Your task to perform on an android device: install app "Spotify" Image 0: 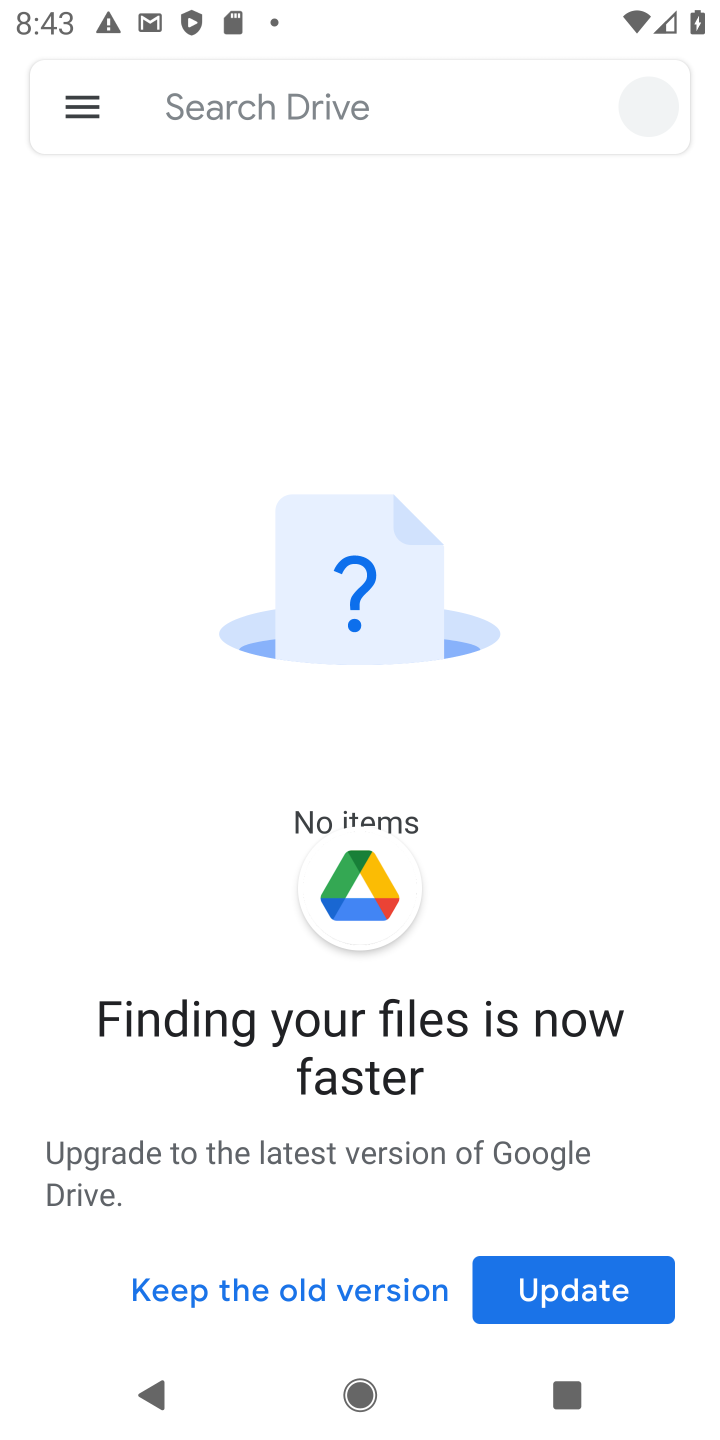
Step 0: press home button
Your task to perform on an android device: install app "Spotify" Image 1: 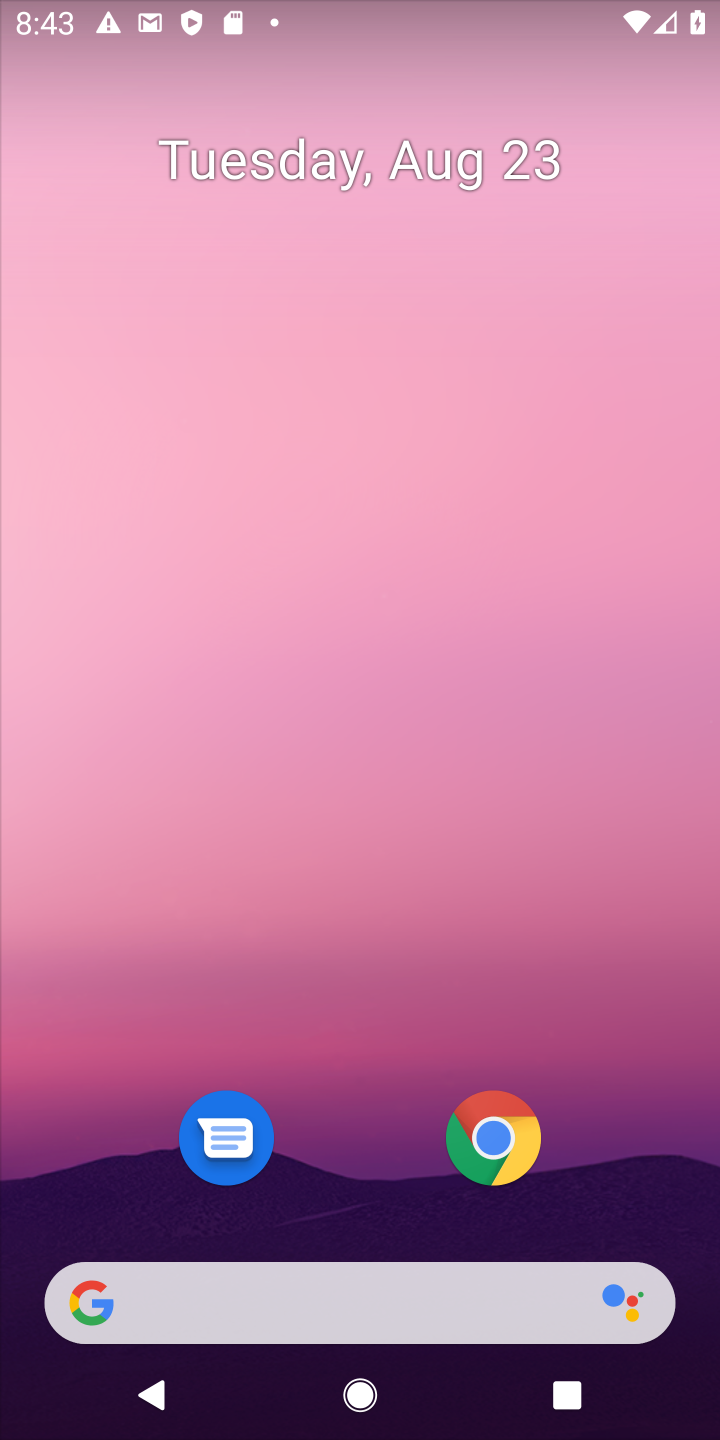
Step 1: drag from (618, 1190) to (669, 88)
Your task to perform on an android device: install app "Spotify" Image 2: 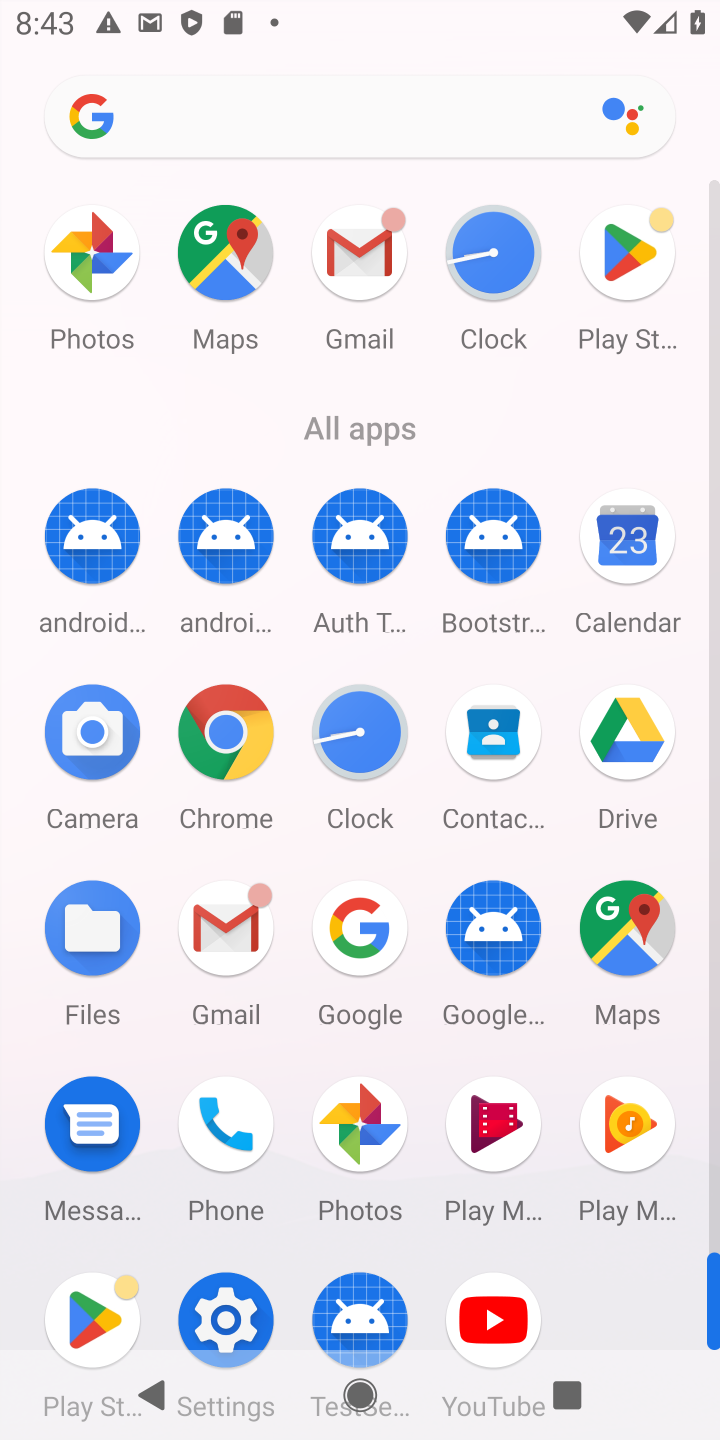
Step 2: click (633, 263)
Your task to perform on an android device: install app "Spotify" Image 3: 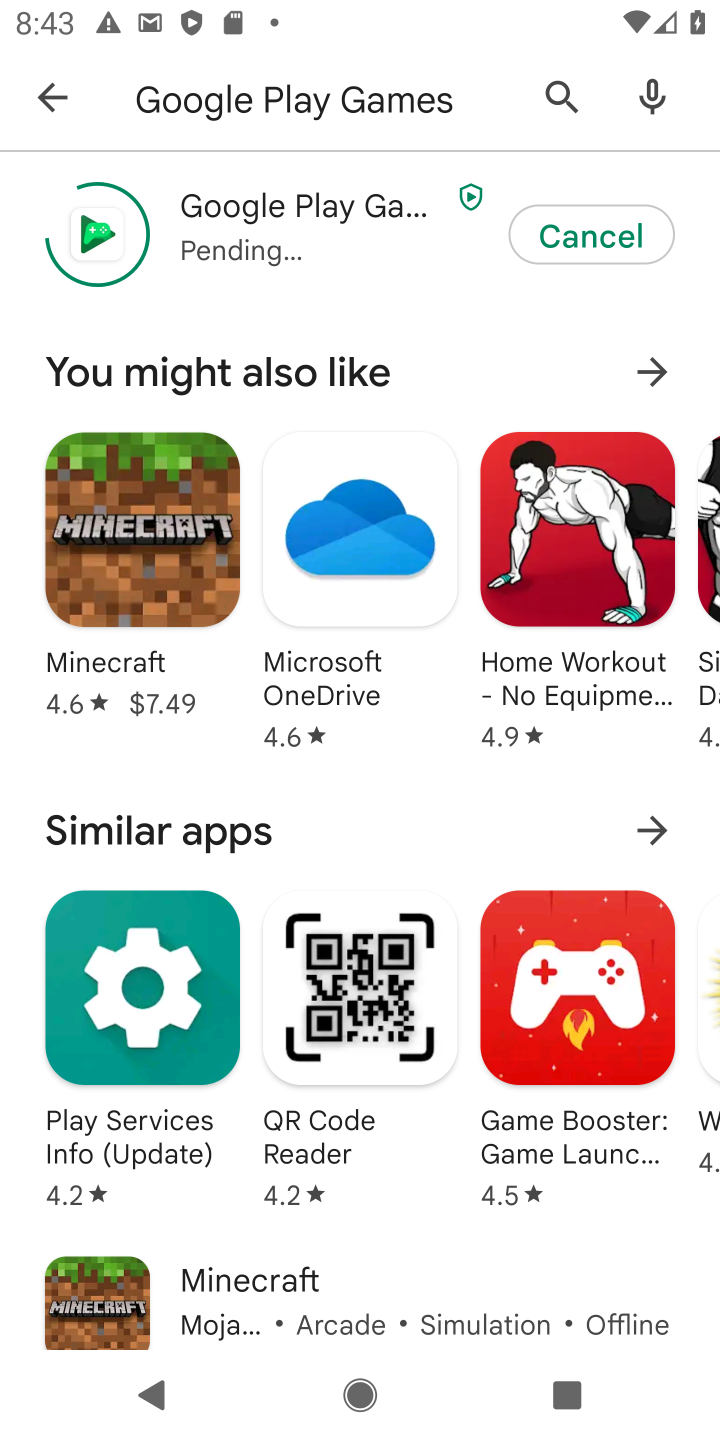
Step 3: press back button
Your task to perform on an android device: install app "Spotify" Image 4: 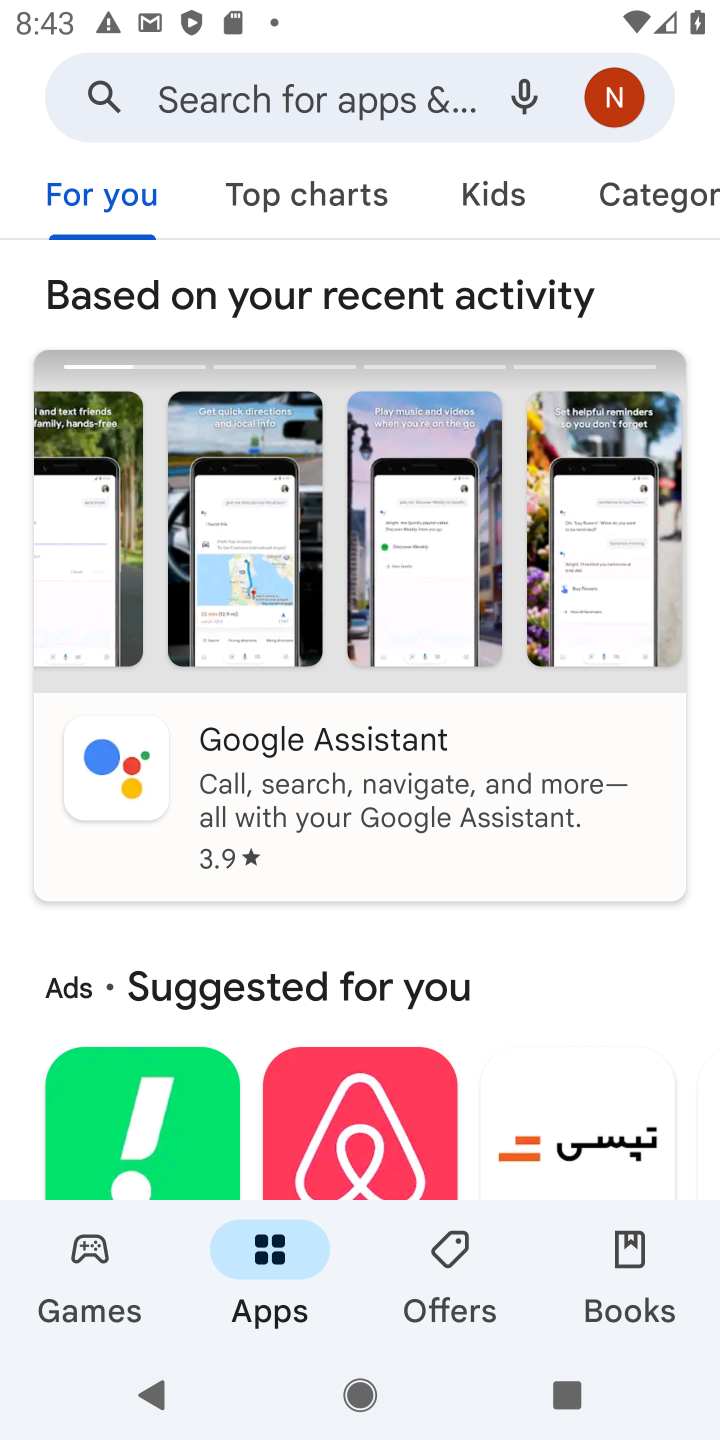
Step 4: click (367, 104)
Your task to perform on an android device: install app "Spotify" Image 5: 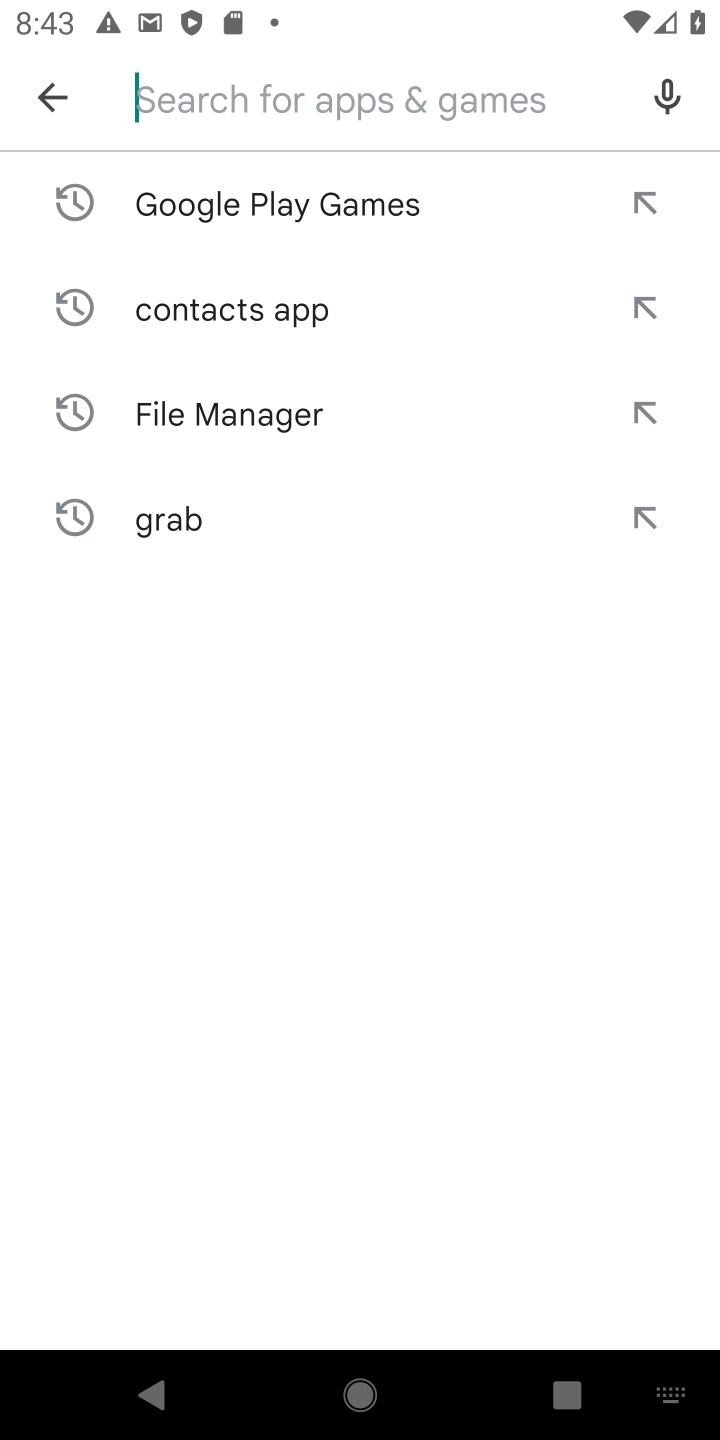
Step 5: press enter
Your task to perform on an android device: install app "Spotify" Image 6: 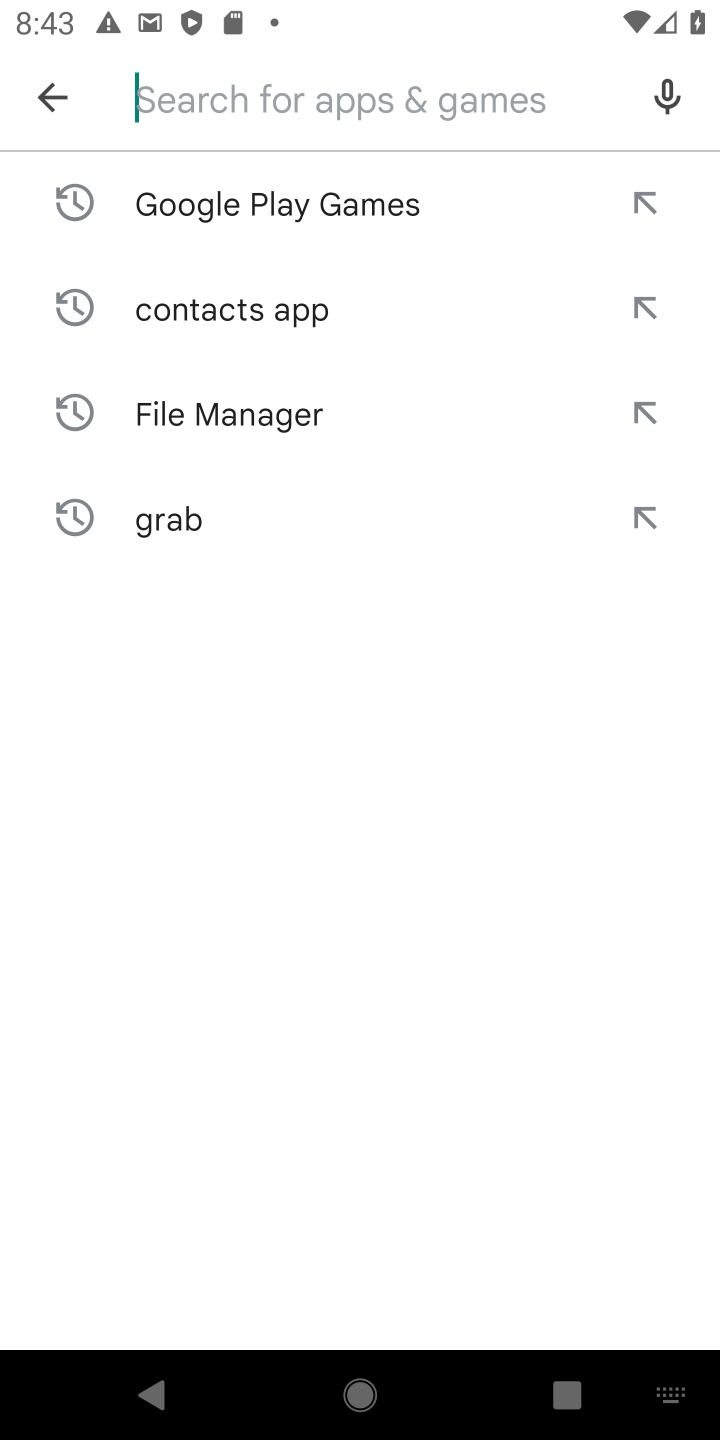
Step 6: type "Spotify"
Your task to perform on an android device: install app "Spotify" Image 7: 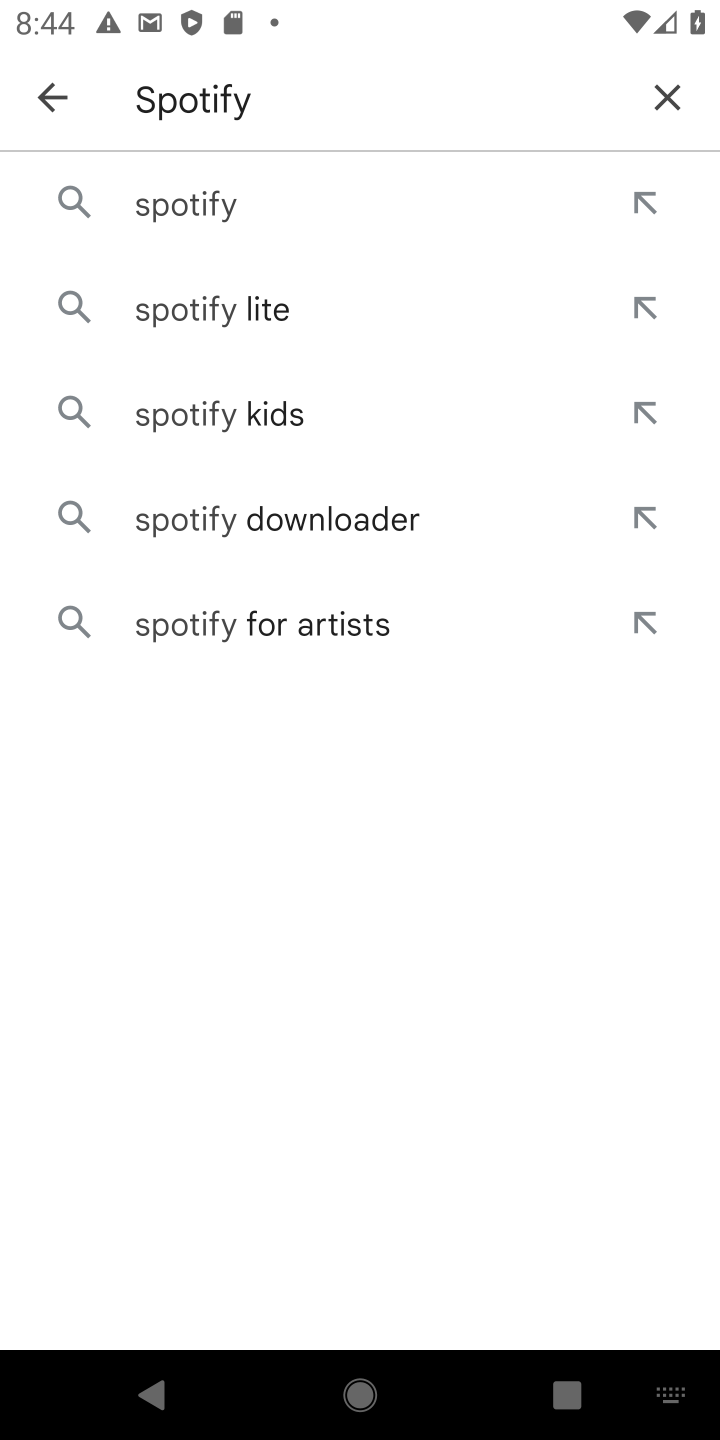
Step 7: click (218, 196)
Your task to perform on an android device: install app "Spotify" Image 8: 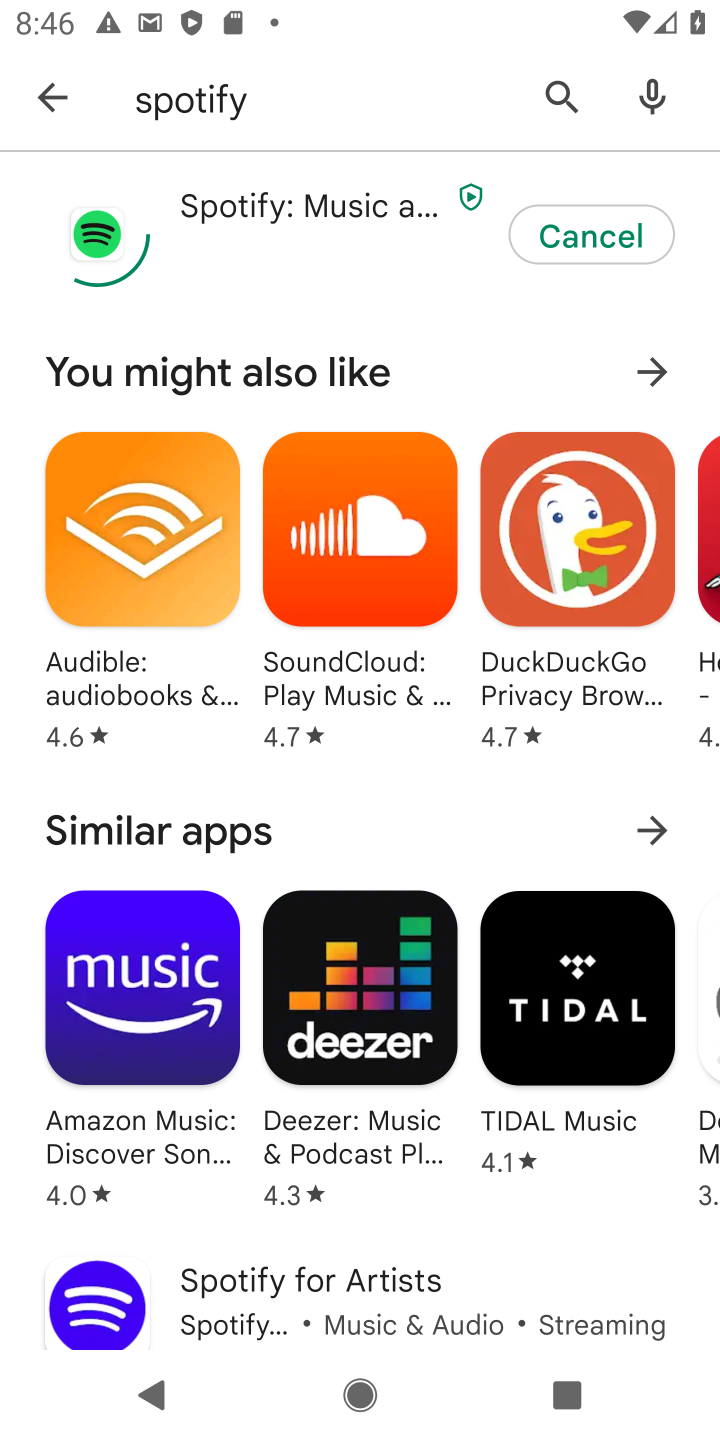
Step 8: task complete